Your task to perform on an android device: Open notification settings Image 0: 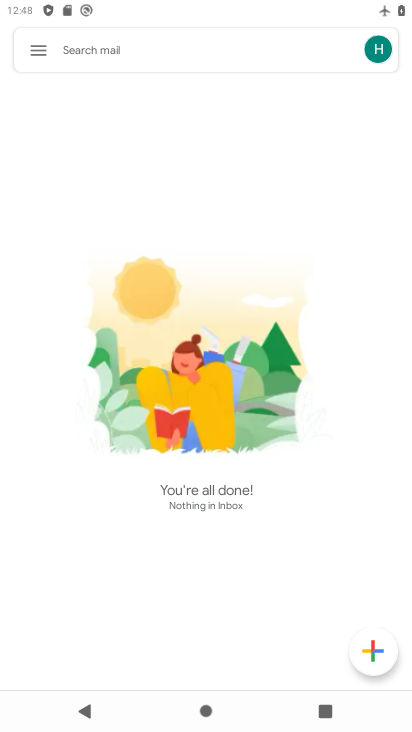
Step 0: press home button
Your task to perform on an android device: Open notification settings Image 1: 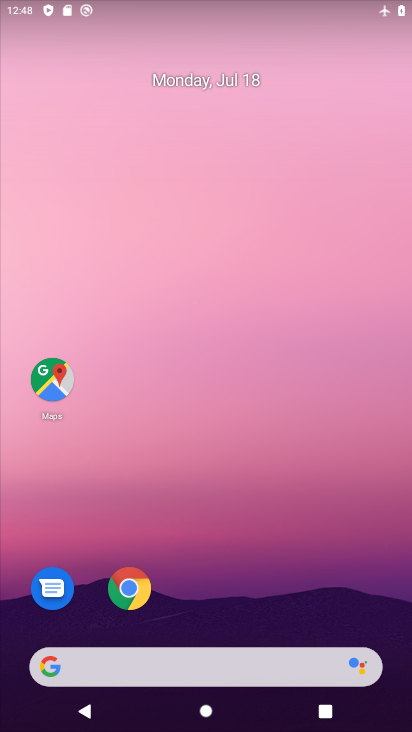
Step 1: drag from (223, 672) to (150, 19)
Your task to perform on an android device: Open notification settings Image 2: 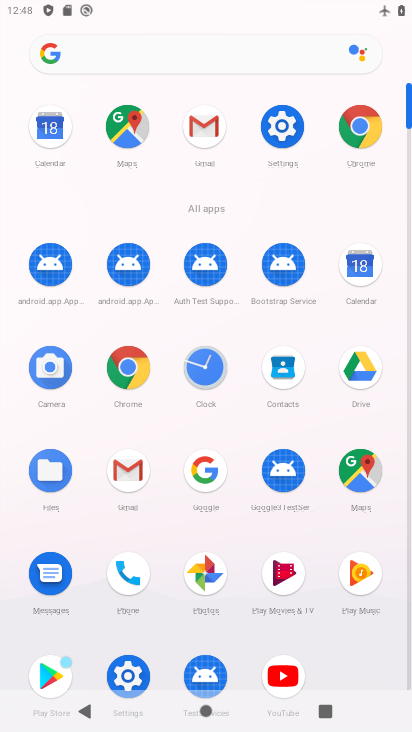
Step 2: click (288, 139)
Your task to perform on an android device: Open notification settings Image 3: 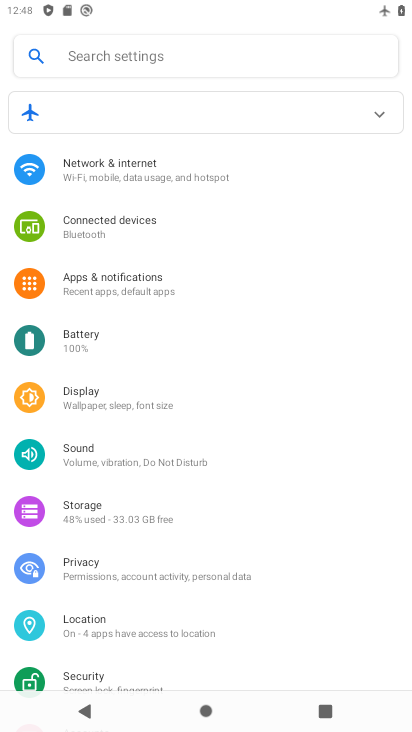
Step 3: click (129, 288)
Your task to perform on an android device: Open notification settings Image 4: 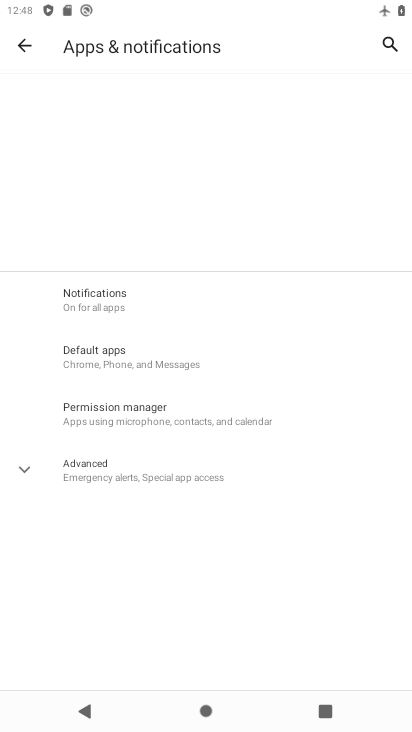
Step 4: task complete